Your task to perform on an android device: turn off translation in the chrome app Image 0: 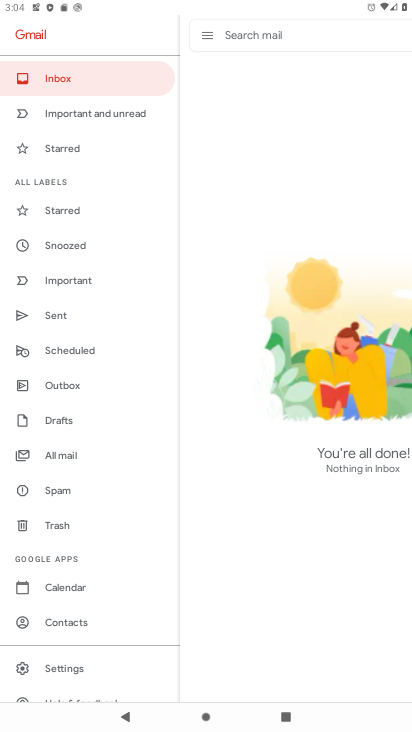
Step 0: press home button
Your task to perform on an android device: turn off translation in the chrome app Image 1: 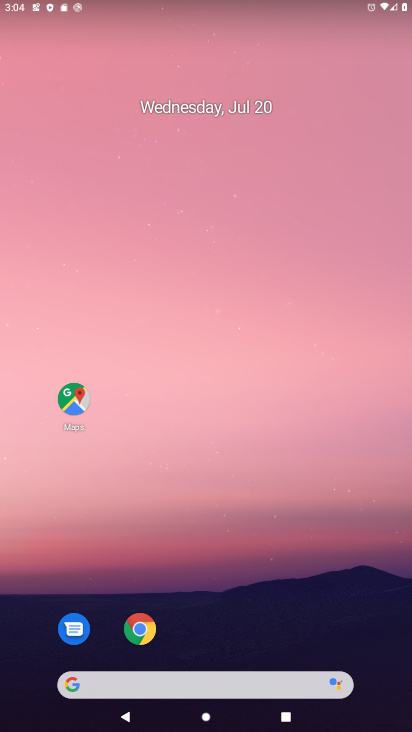
Step 1: click (136, 625)
Your task to perform on an android device: turn off translation in the chrome app Image 2: 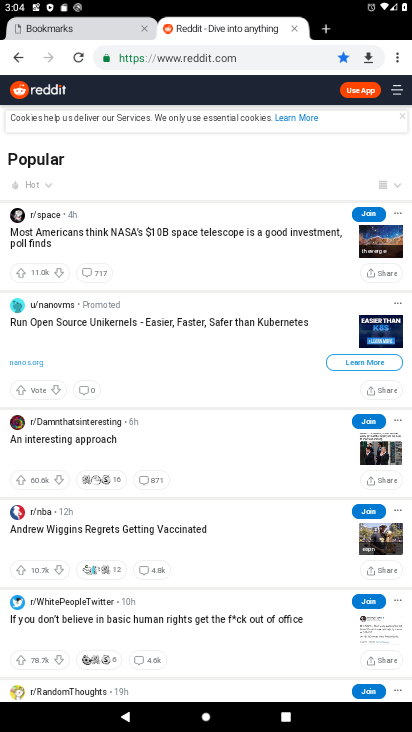
Step 2: click (395, 55)
Your task to perform on an android device: turn off translation in the chrome app Image 3: 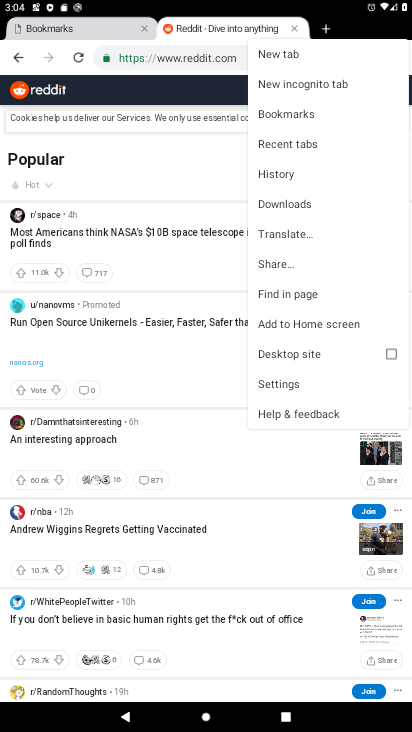
Step 3: click (301, 381)
Your task to perform on an android device: turn off translation in the chrome app Image 4: 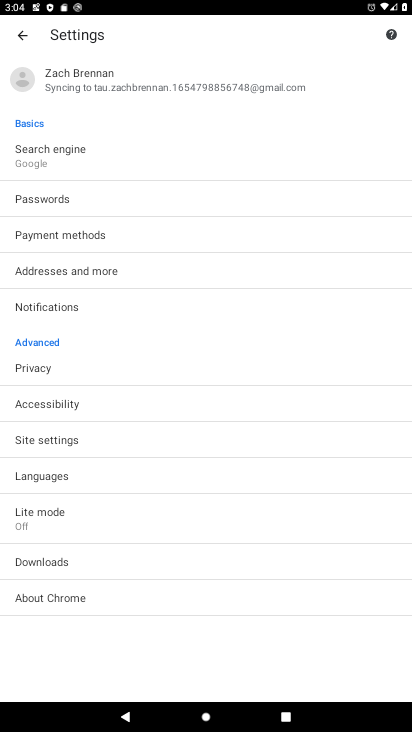
Step 4: click (79, 476)
Your task to perform on an android device: turn off translation in the chrome app Image 5: 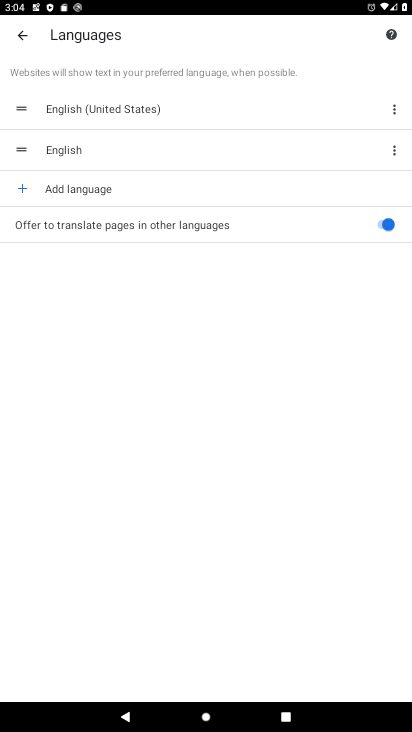
Step 5: click (374, 225)
Your task to perform on an android device: turn off translation in the chrome app Image 6: 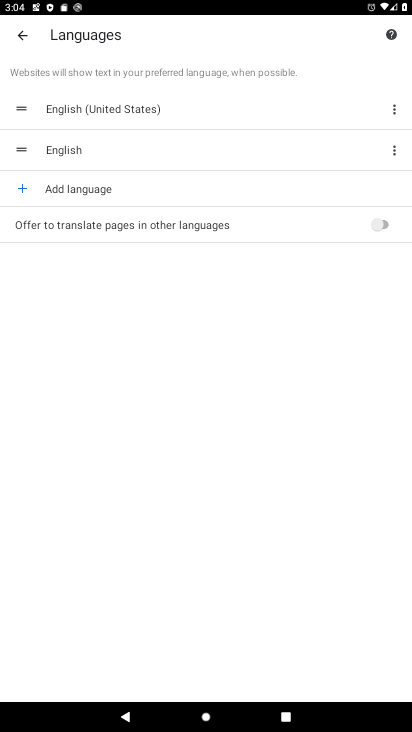
Step 6: task complete